Your task to perform on an android device: turn on bluetooth scan Image 0: 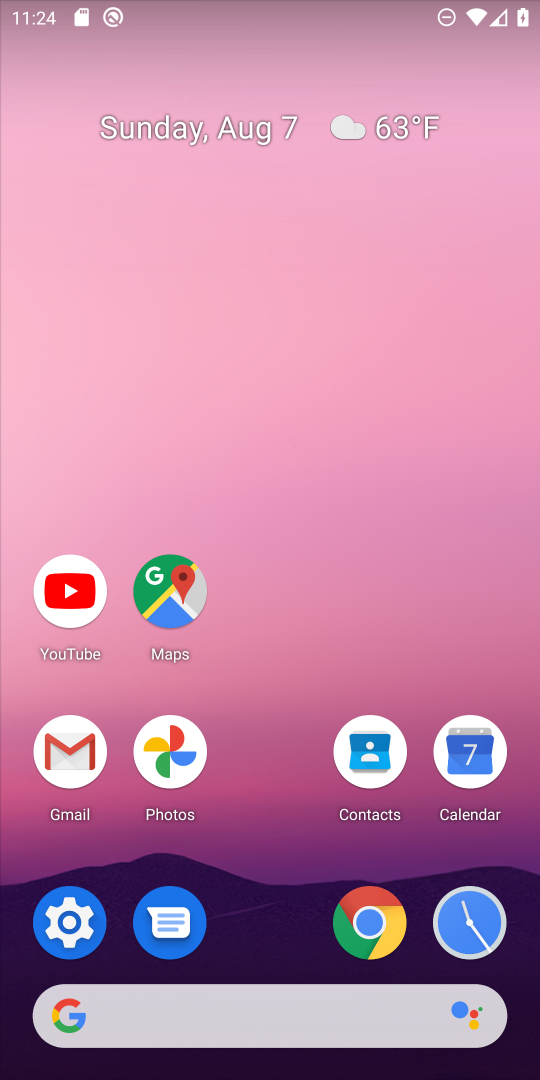
Step 0: click (56, 916)
Your task to perform on an android device: turn on bluetooth scan Image 1: 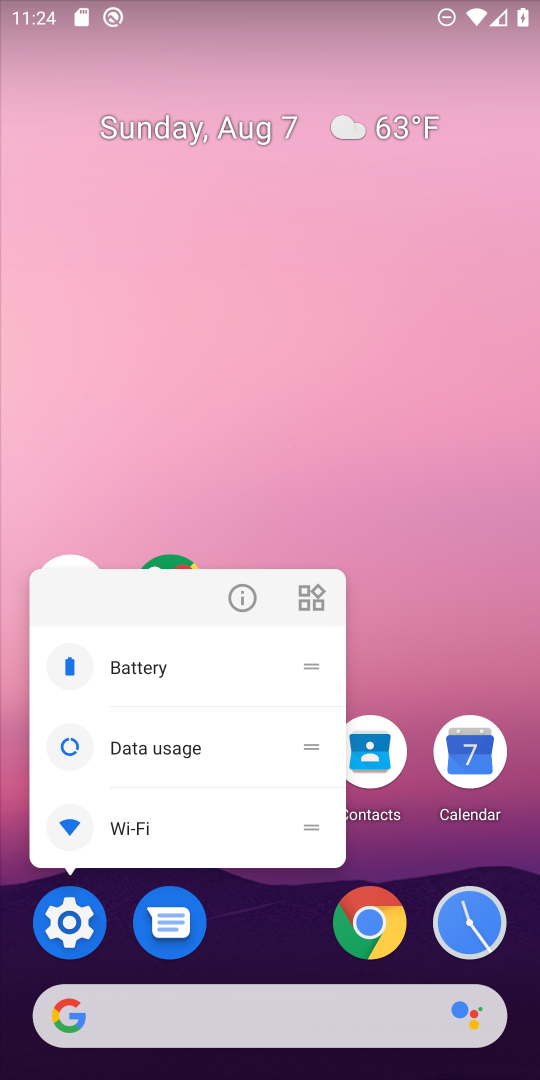
Step 1: click (56, 916)
Your task to perform on an android device: turn on bluetooth scan Image 2: 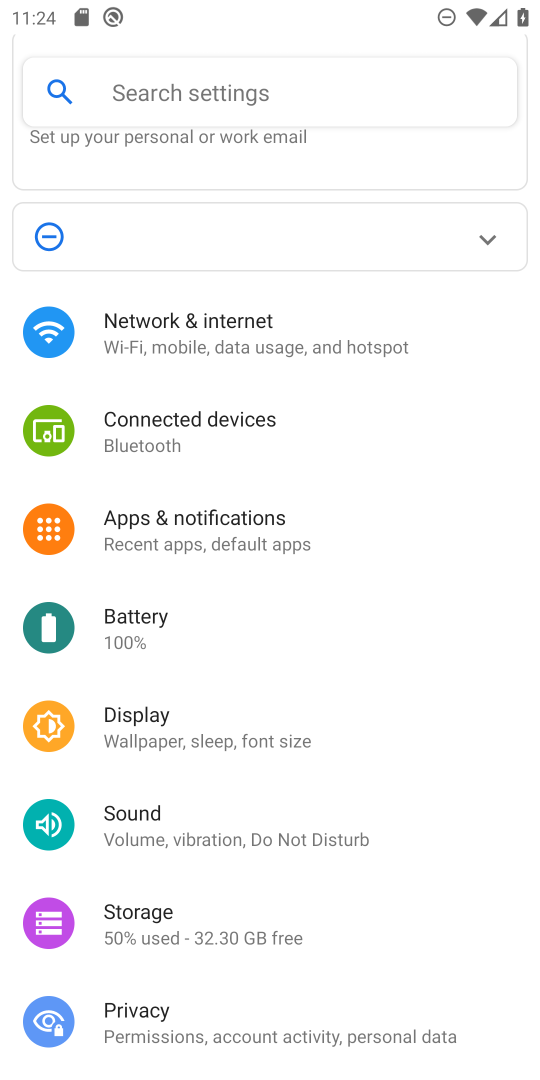
Step 2: drag from (357, 802) to (327, 317)
Your task to perform on an android device: turn on bluetooth scan Image 3: 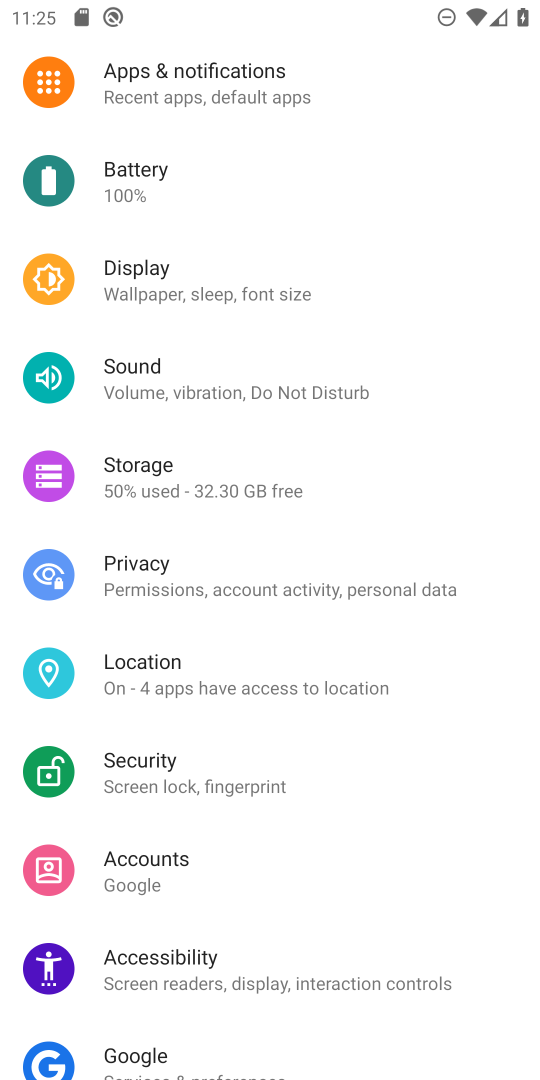
Step 3: click (151, 663)
Your task to perform on an android device: turn on bluetooth scan Image 4: 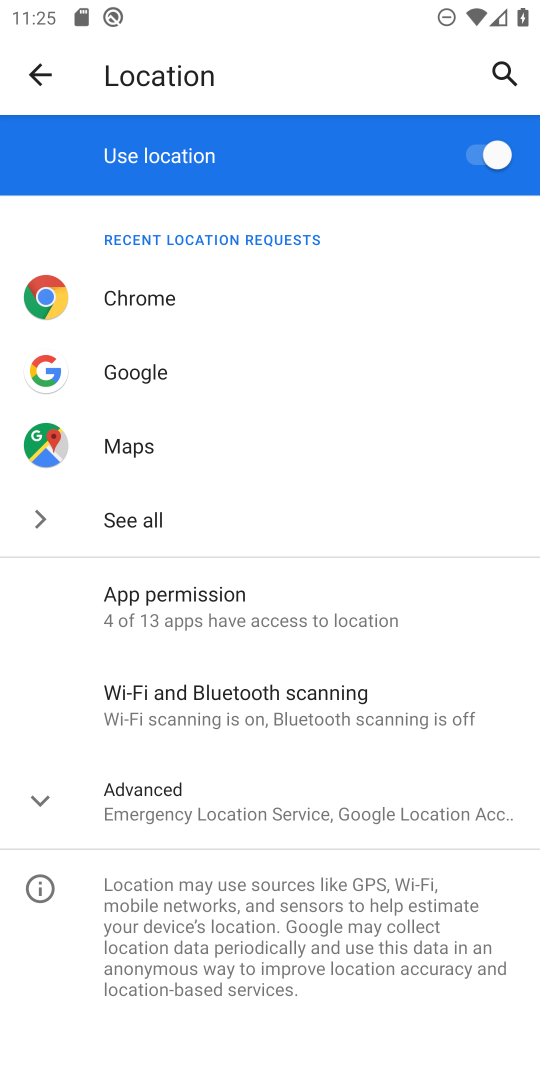
Step 4: click (168, 702)
Your task to perform on an android device: turn on bluetooth scan Image 5: 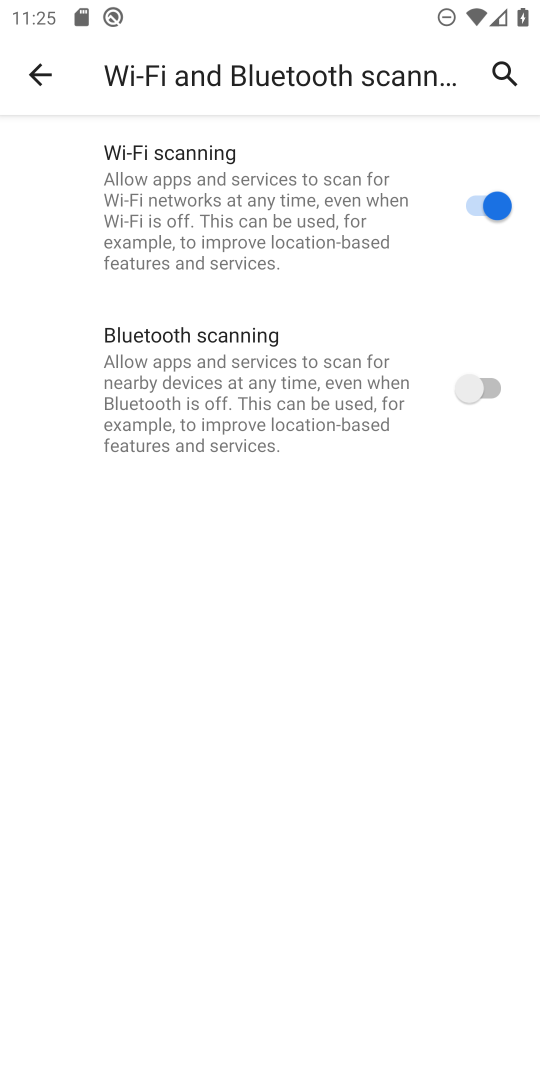
Step 5: click (463, 387)
Your task to perform on an android device: turn on bluetooth scan Image 6: 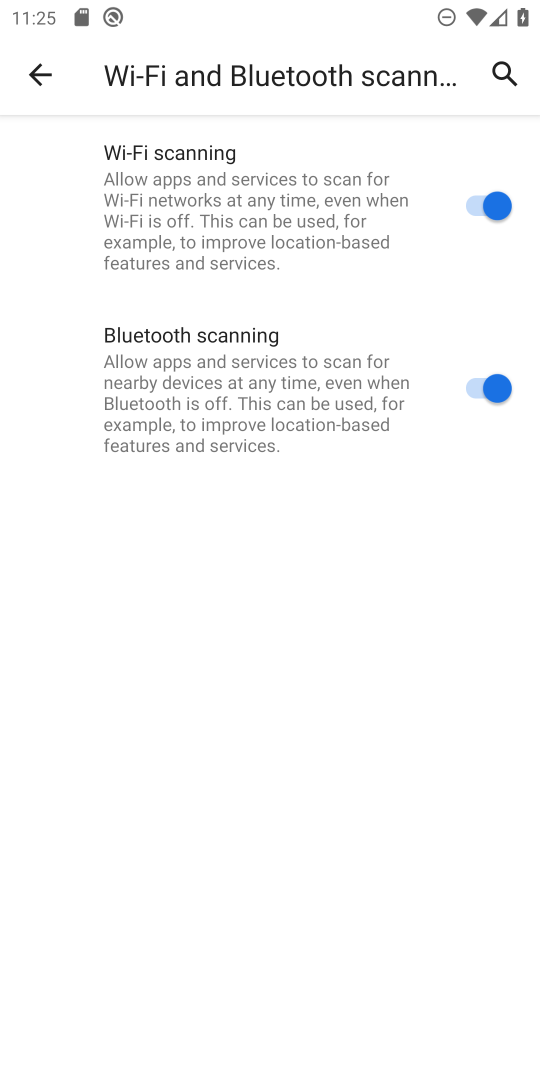
Step 6: task complete